Your task to perform on an android device: turn on sleep mode Image 0: 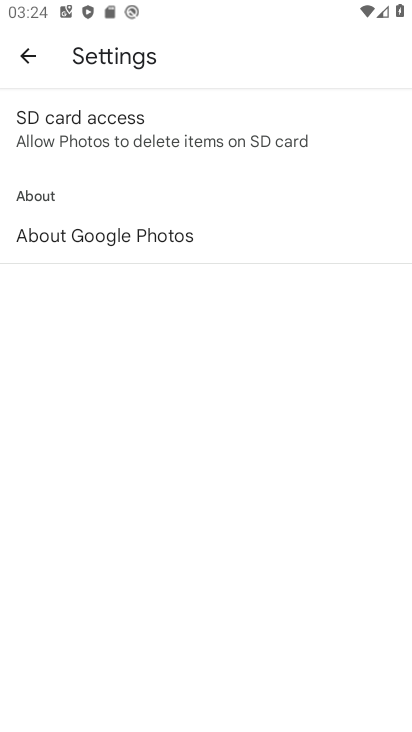
Step 0: press home button
Your task to perform on an android device: turn on sleep mode Image 1: 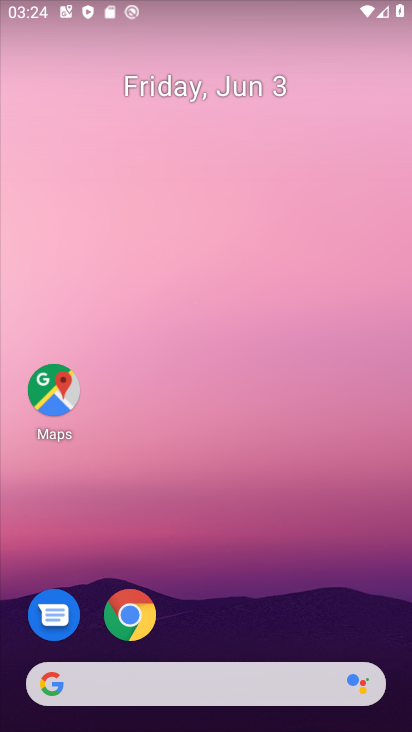
Step 1: drag from (236, 607) to (219, 163)
Your task to perform on an android device: turn on sleep mode Image 2: 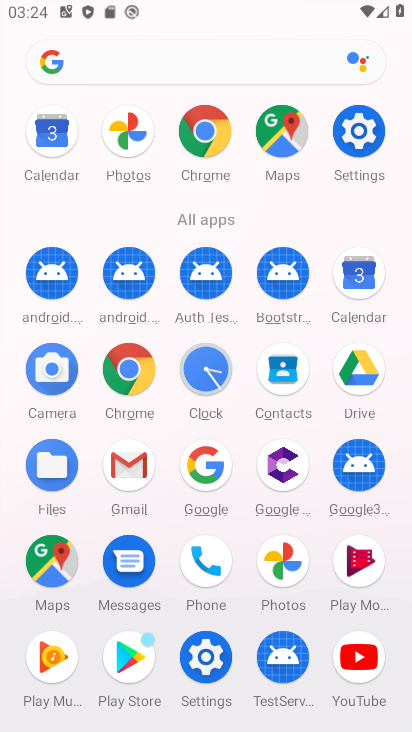
Step 2: click (194, 138)
Your task to perform on an android device: turn on sleep mode Image 3: 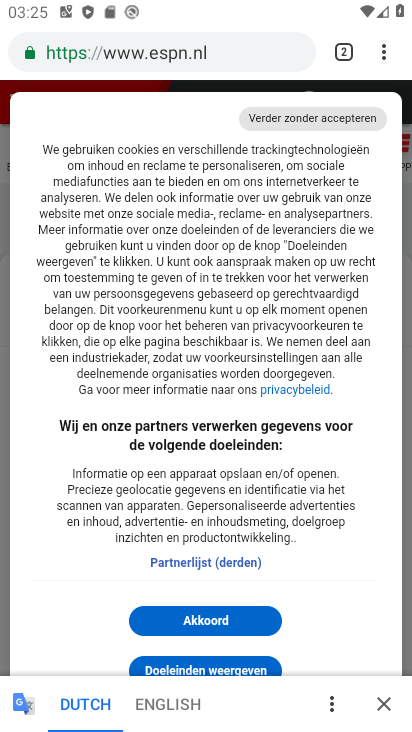
Step 3: press home button
Your task to perform on an android device: turn on sleep mode Image 4: 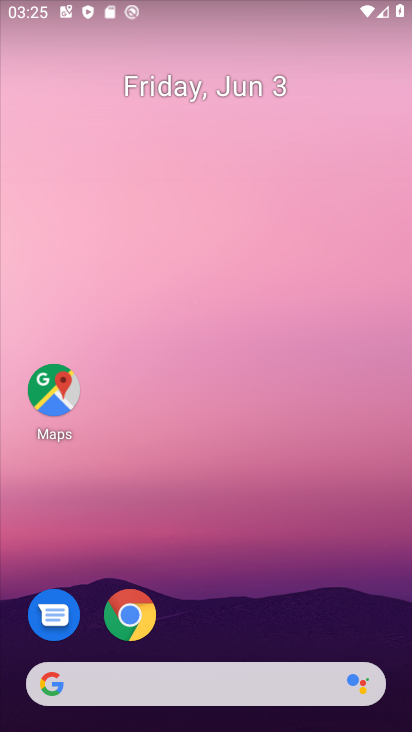
Step 4: drag from (259, 608) to (233, 62)
Your task to perform on an android device: turn on sleep mode Image 5: 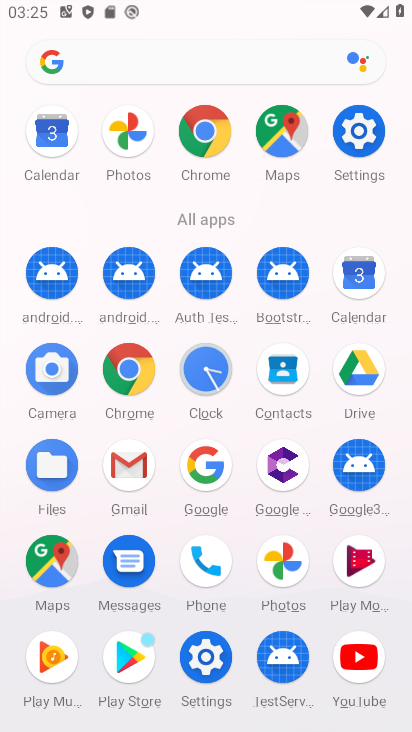
Step 5: click (363, 128)
Your task to perform on an android device: turn on sleep mode Image 6: 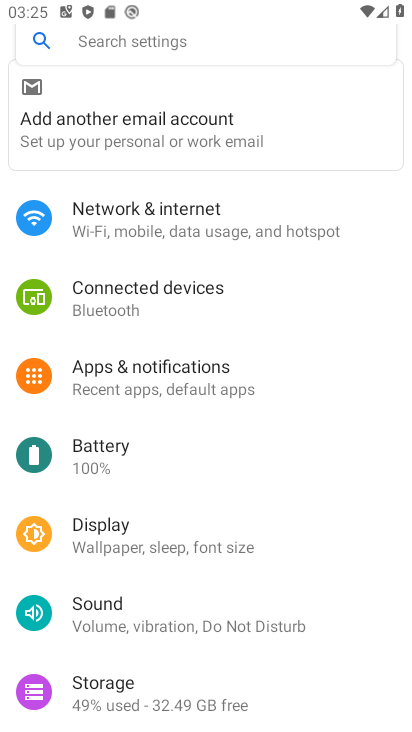
Step 6: click (219, 533)
Your task to perform on an android device: turn on sleep mode Image 7: 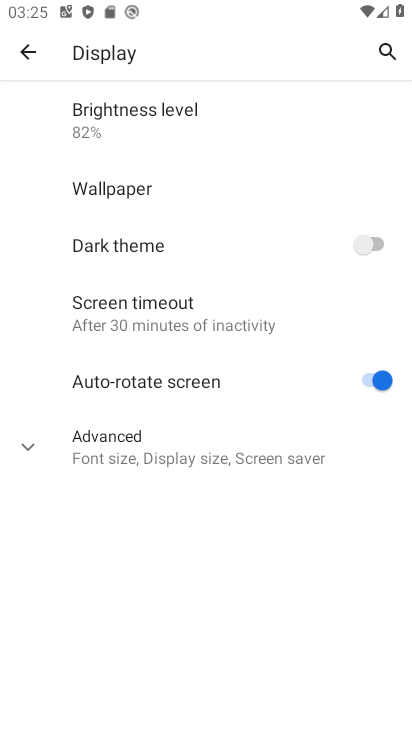
Step 7: click (255, 440)
Your task to perform on an android device: turn on sleep mode Image 8: 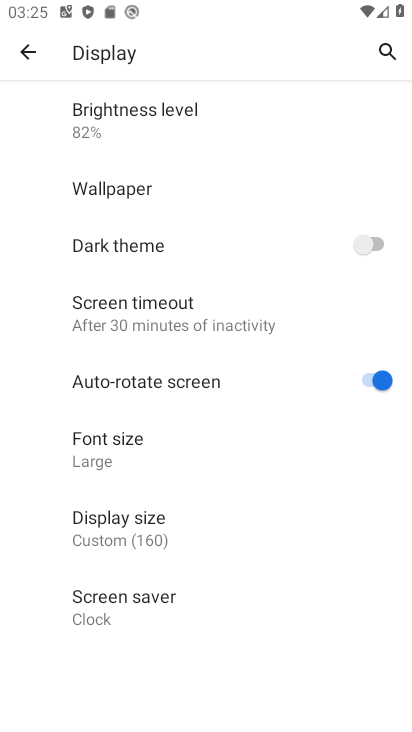
Step 8: task complete